Your task to perform on an android device: turn pop-ups off in chrome Image 0: 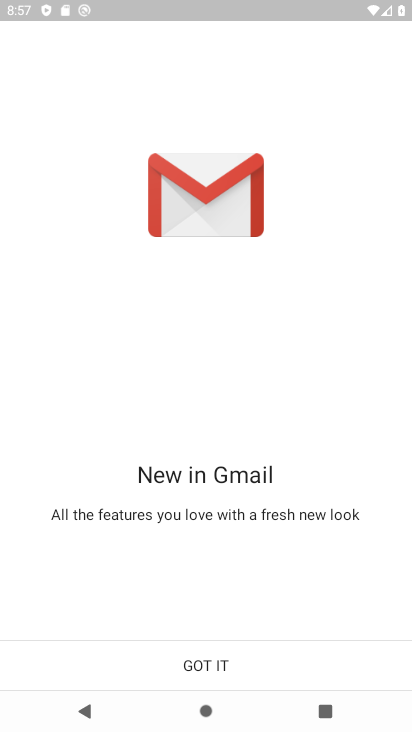
Step 0: press home button
Your task to perform on an android device: turn pop-ups off in chrome Image 1: 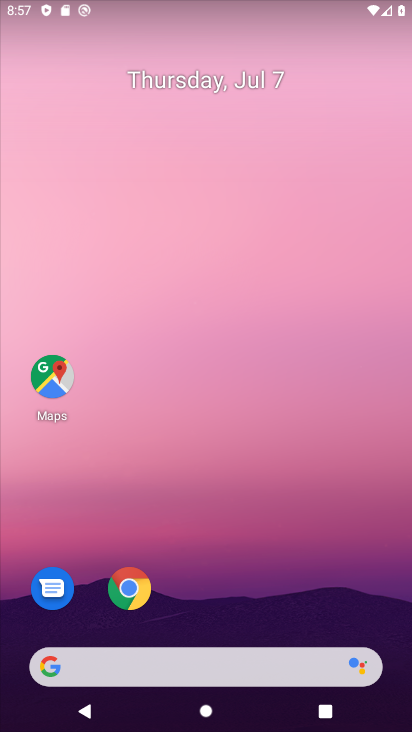
Step 1: click (136, 598)
Your task to perform on an android device: turn pop-ups off in chrome Image 2: 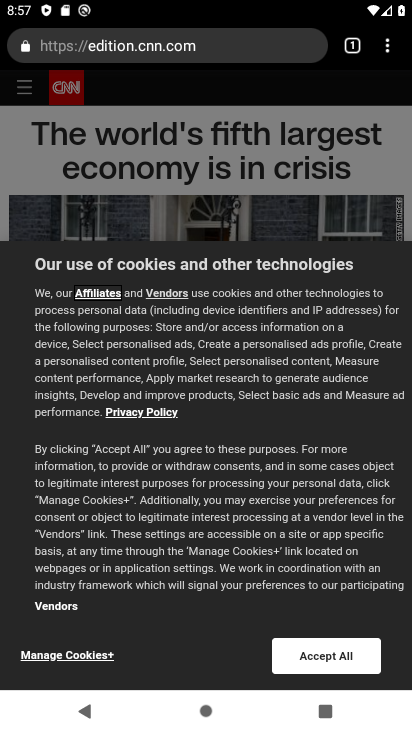
Step 2: click (392, 43)
Your task to perform on an android device: turn pop-ups off in chrome Image 3: 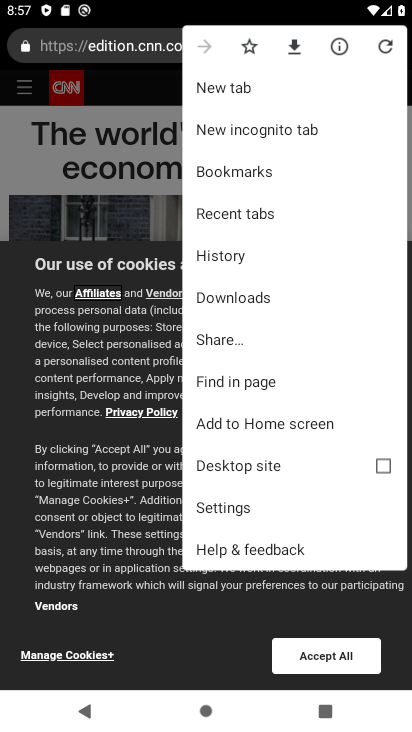
Step 3: click (219, 504)
Your task to perform on an android device: turn pop-ups off in chrome Image 4: 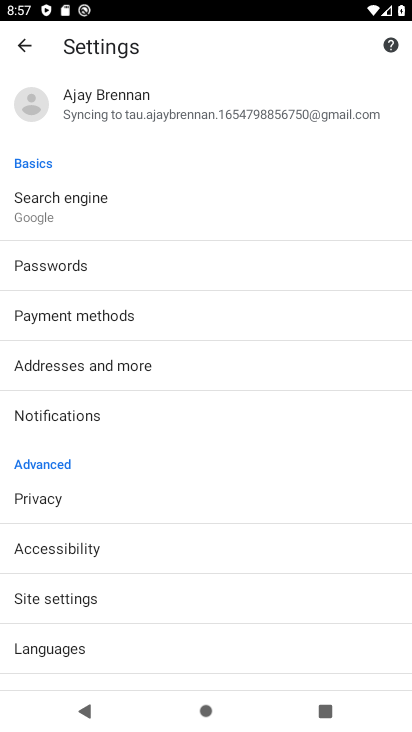
Step 4: click (65, 592)
Your task to perform on an android device: turn pop-ups off in chrome Image 5: 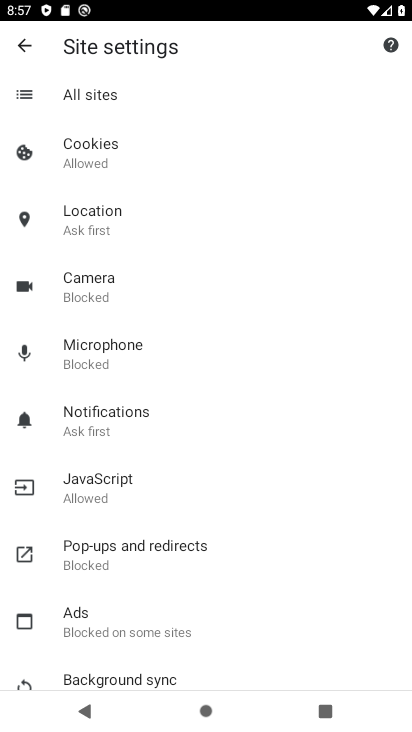
Step 5: click (113, 558)
Your task to perform on an android device: turn pop-ups off in chrome Image 6: 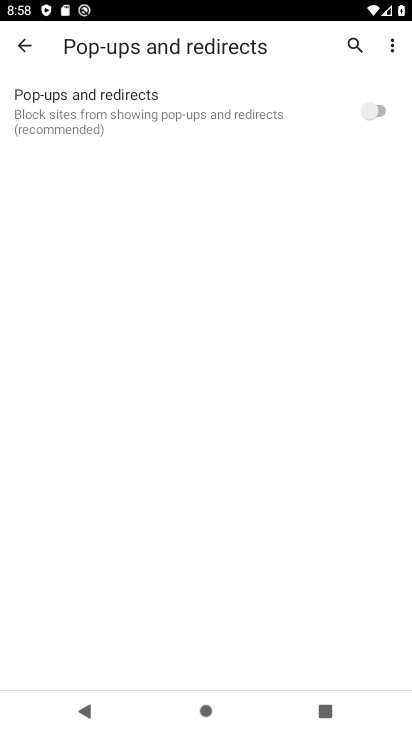
Step 6: task complete